Your task to perform on an android device: Go to privacy settings Image 0: 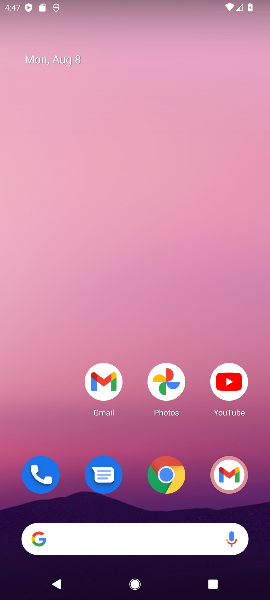
Step 0: press home button
Your task to perform on an android device: Go to privacy settings Image 1: 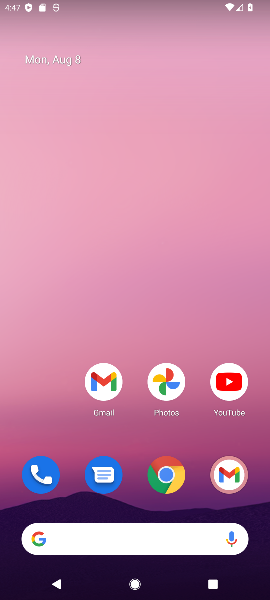
Step 1: drag from (56, 434) to (57, 157)
Your task to perform on an android device: Go to privacy settings Image 2: 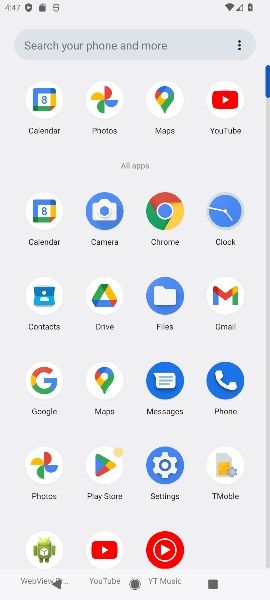
Step 2: click (167, 472)
Your task to perform on an android device: Go to privacy settings Image 3: 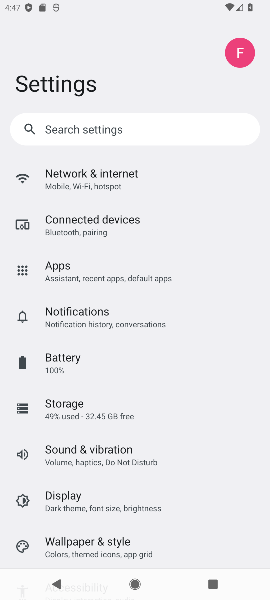
Step 3: drag from (237, 461) to (234, 344)
Your task to perform on an android device: Go to privacy settings Image 4: 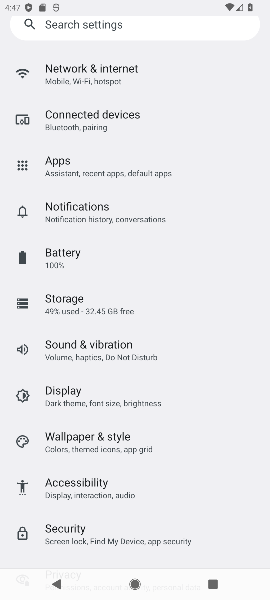
Step 4: drag from (211, 408) to (210, 307)
Your task to perform on an android device: Go to privacy settings Image 5: 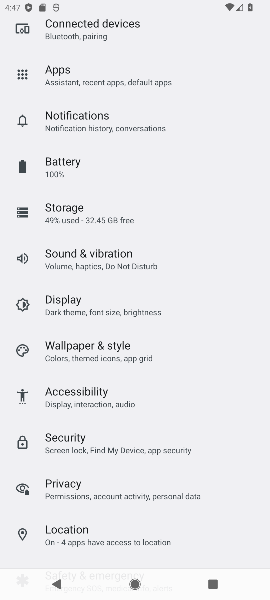
Step 5: drag from (219, 430) to (219, 338)
Your task to perform on an android device: Go to privacy settings Image 6: 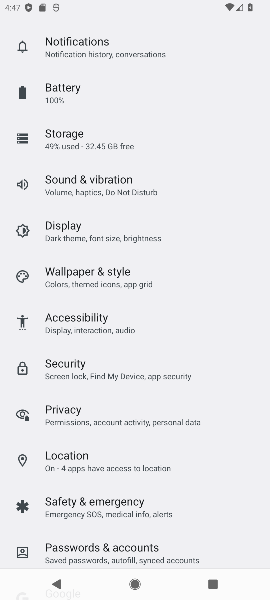
Step 6: drag from (229, 459) to (231, 380)
Your task to perform on an android device: Go to privacy settings Image 7: 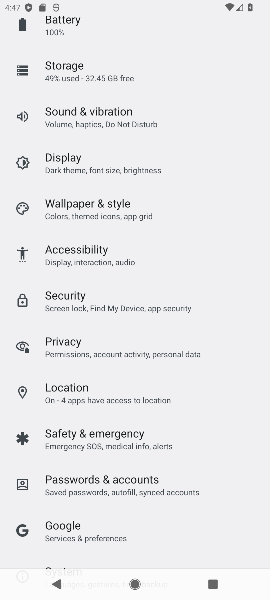
Step 7: drag from (230, 461) to (228, 360)
Your task to perform on an android device: Go to privacy settings Image 8: 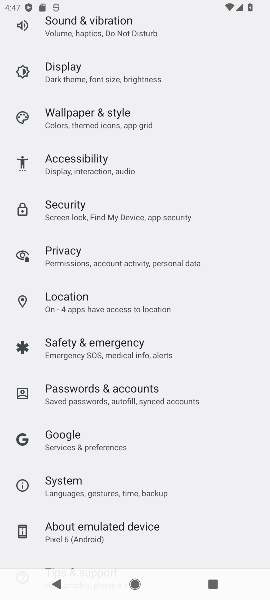
Step 8: drag from (232, 466) to (231, 400)
Your task to perform on an android device: Go to privacy settings Image 9: 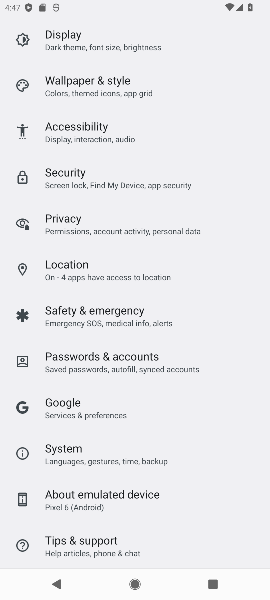
Step 9: drag from (225, 483) to (224, 367)
Your task to perform on an android device: Go to privacy settings Image 10: 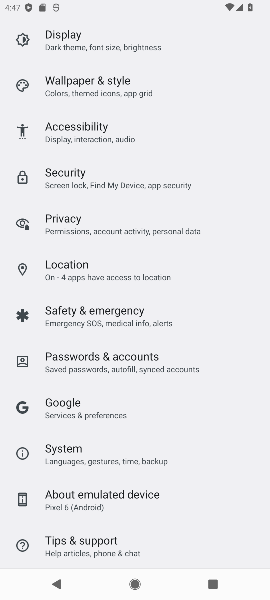
Step 10: click (213, 215)
Your task to perform on an android device: Go to privacy settings Image 11: 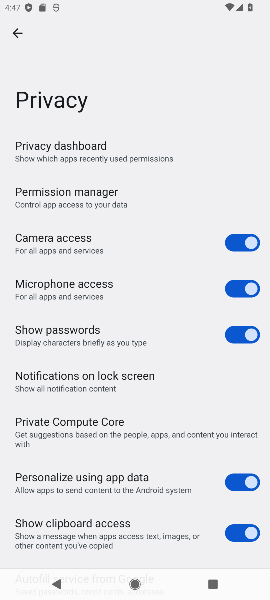
Step 11: task complete